Your task to perform on an android device: Set the phone to "Do not disturb". Image 0: 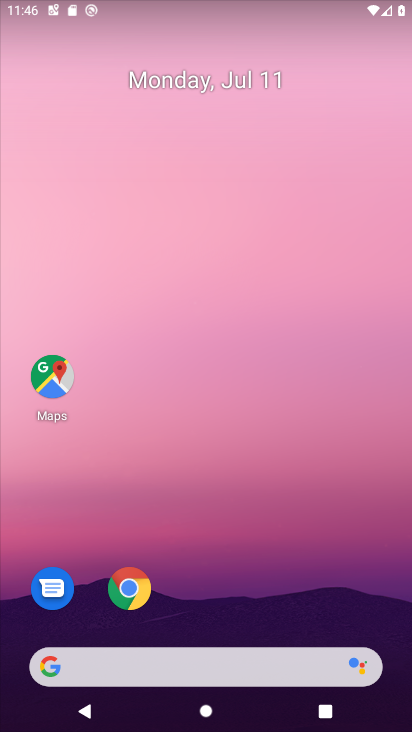
Step 0: drag from (258, 660) to (207, 66)
Your task to perform on an android device: Set the phone to "Do not disturb". Image 1: 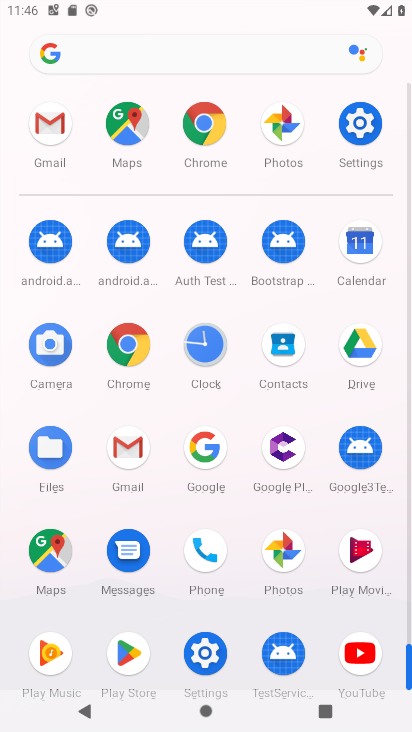
Step 1: click (350, 125)
Your task to perform on an android device: Set the phone to "Do not disturb". Image 2: 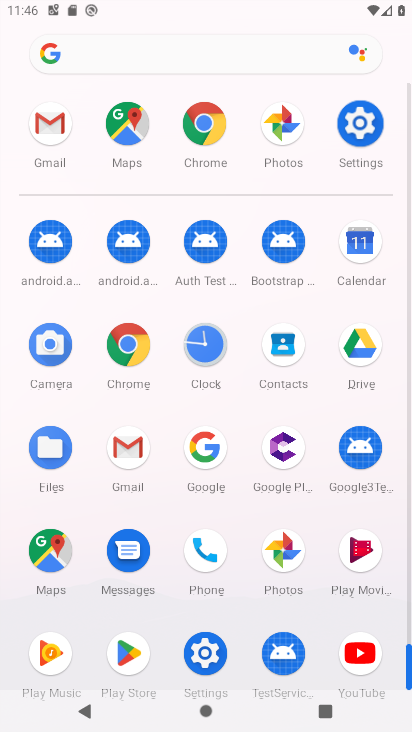
Step 2: click (352, 129)
Your task to perform on an android device: Set the phone to "Do not disturb". Image 3: 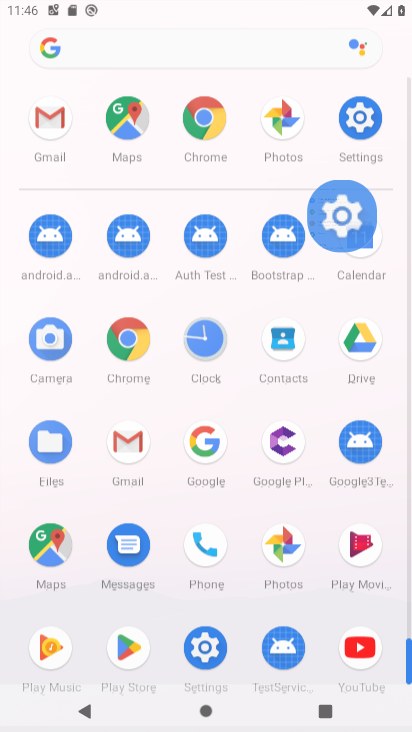
Step 3: click (350, 129)
Your task to perform on an android device: Set the phone to "Do not disturb". Image 4: 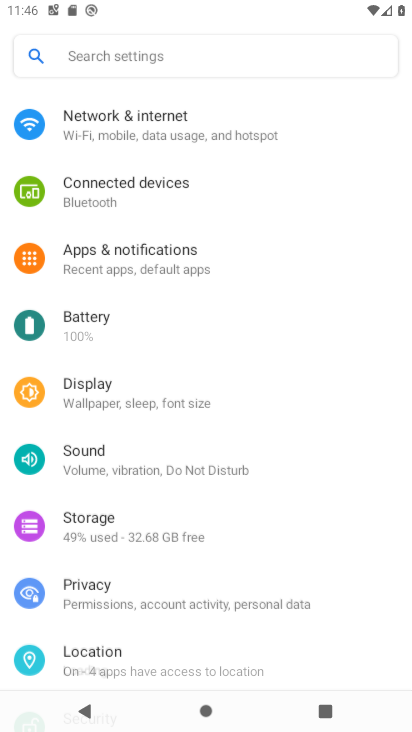
Step 4: click (346, 129)
Your task to perform on an android device: Set the phone to "Do not disturb". Image 5: 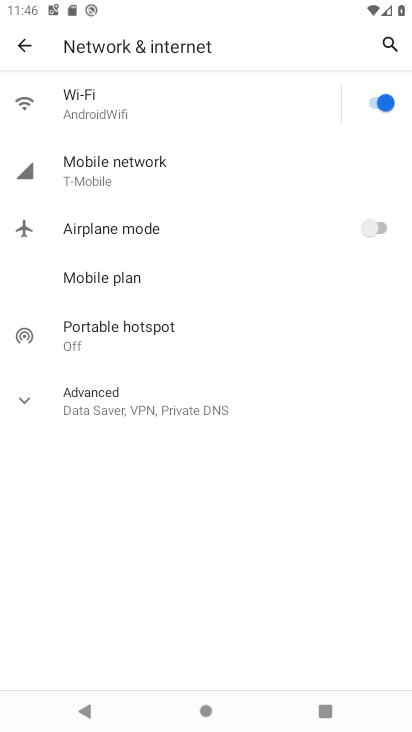
Step 5: click (18, 51)
Your task to perform on an android device: Set the phone to "Do not disturb". Image 6: 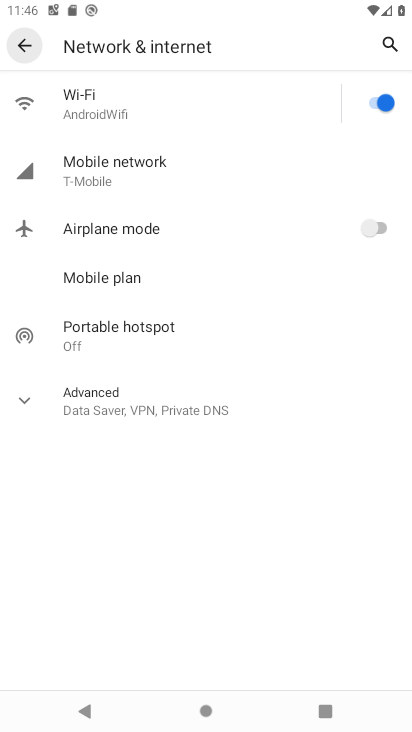
Step 6: click (20, 51)
Your task to perform on an android device: Set the phone to "Do not disturb". Image 7: 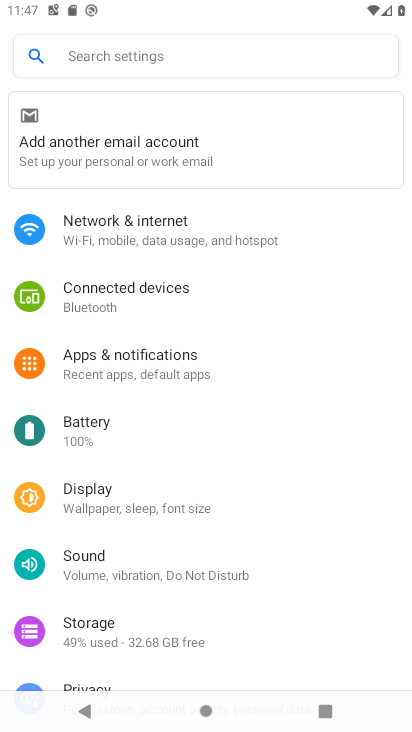
Step 7: click (167, 562)
Your task to perform on an android device: Set the phone to "Do not disturb". Image 8: 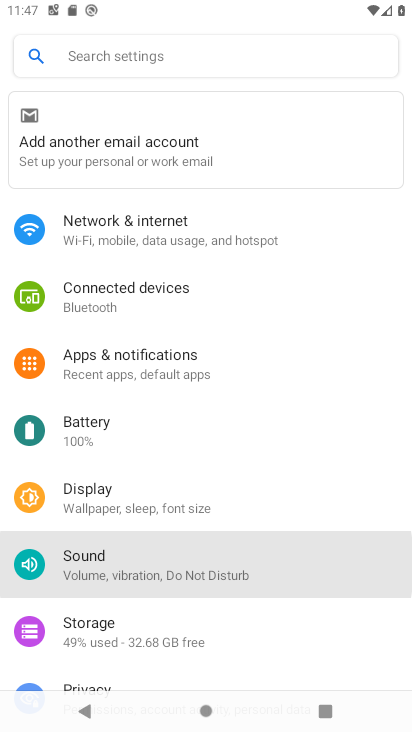
Step 8: click (165, 569)
Your task to perform on an android device: Set the phone to "Do not disturb". Image 9: 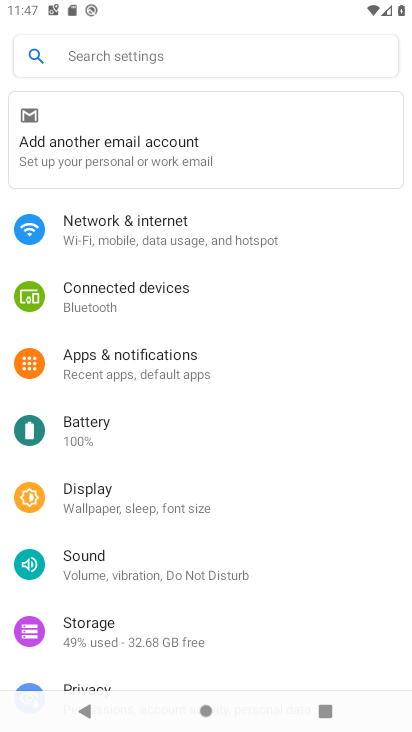
Step 9: click (168, 570)
Your task to perform on an android device: Set the phone to "Do not disturb". Image 10: 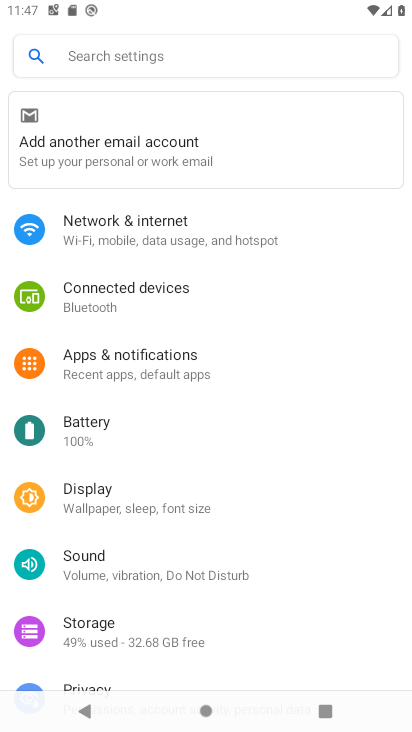
Step 10: click (170, 570)
Your task to perform on an android device: Set the phone to "Do not disturb". Image 11: 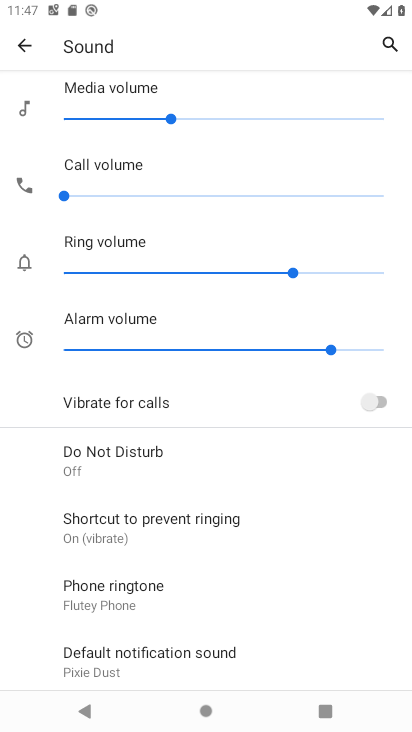
Step 11: click (24, 39)
Your task to perform on an android device: Set the phone to "Do not disturb". Image 12: 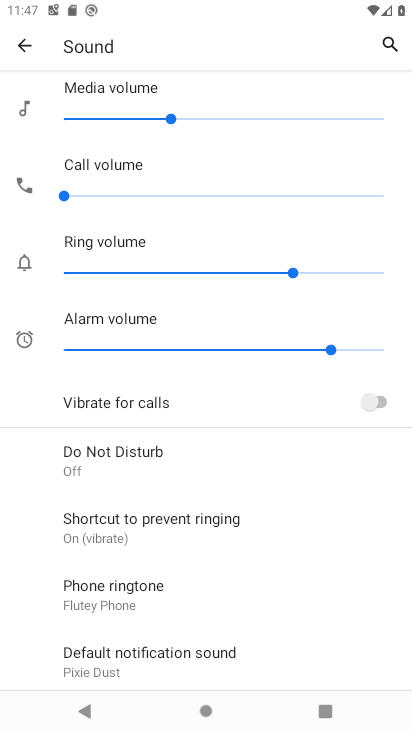
Step 12: click (20, 42)
Your task to perform on an android device: Set the phone to "Do not disturb". Image 13: 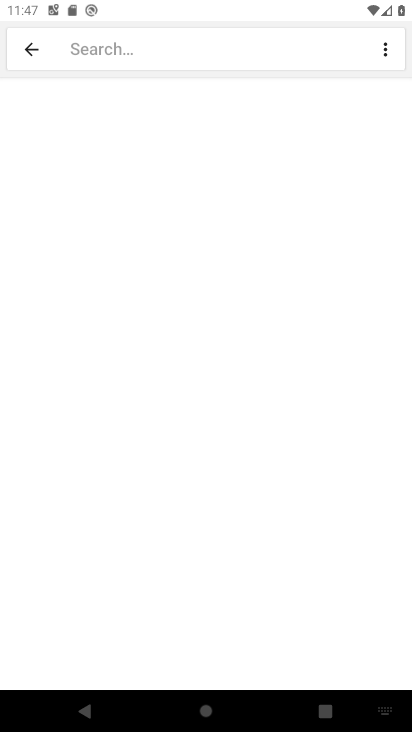
Step 13: click (36, 45)
Your task to perform on an android device: Set the phone to "Do not disturb". Image 14: 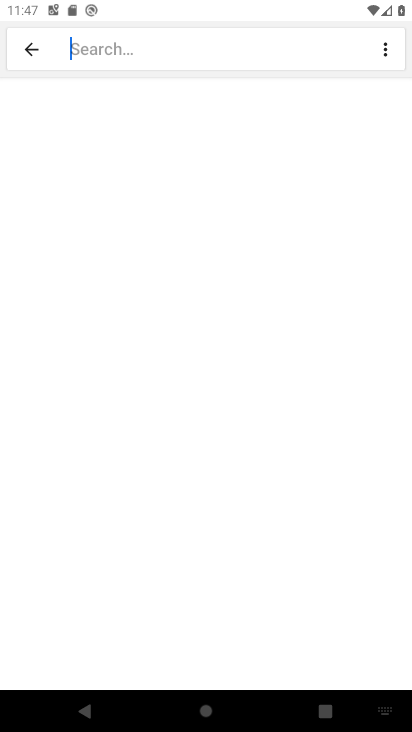
Step 14: click (30, 47)
Your task to perform on an android device: Set the phone to "Do not disturb". Image 15: 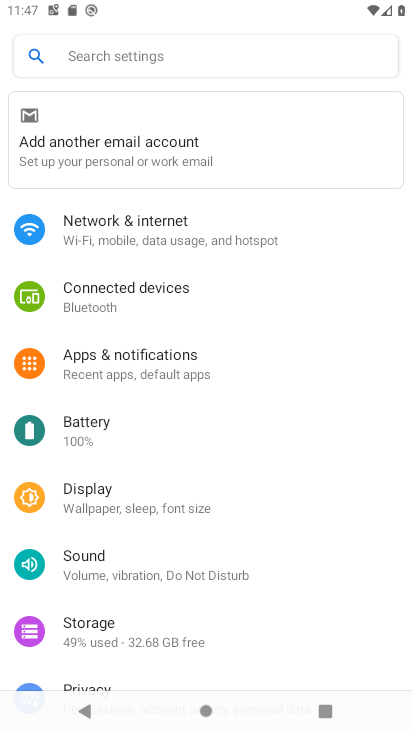
Step 15: click (90, 565)
Your task to perform on an android device: Set the phone to "Do not disturb". Image 16: 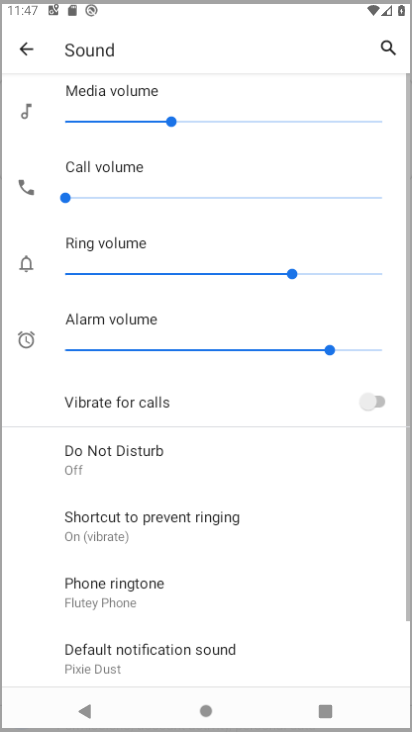
Step 16: click (103, 563)
Your task to perform on an android device: Set the phone to "Do not disturb". Image 17: 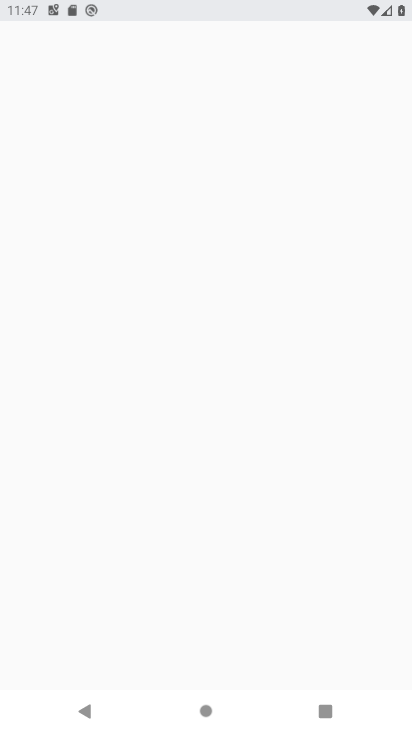
Step 17: drag from (188, 382) to (162, 194)
Your task to perform on an android device: Set the phone to "Do not disturb". Image 18: 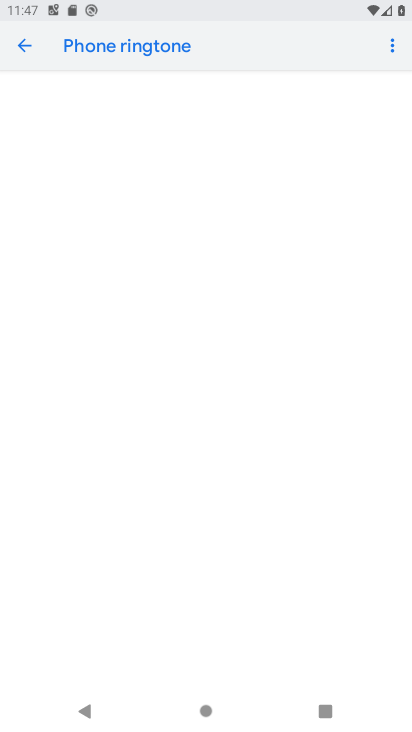
Step 18: drag from (122, 431) to (95, 125)
Your task to perform on an android device: Set the phone to "Do not disturb". Image 19: 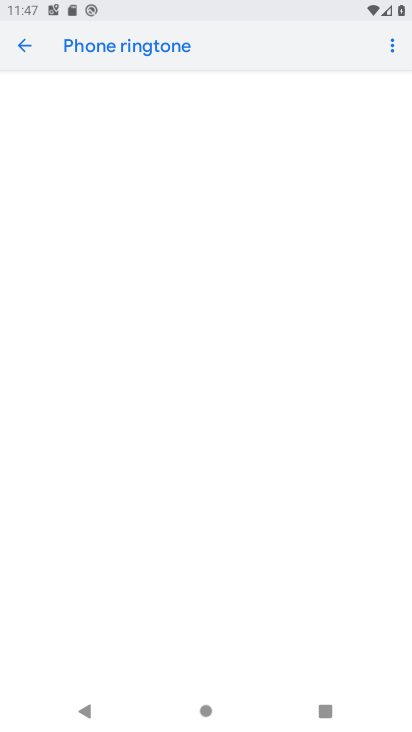
Step 19: drag from (181, 535) to (150, 88)
Your task to perform on an android device: Set the phone to "Do not disturb". Image 20: 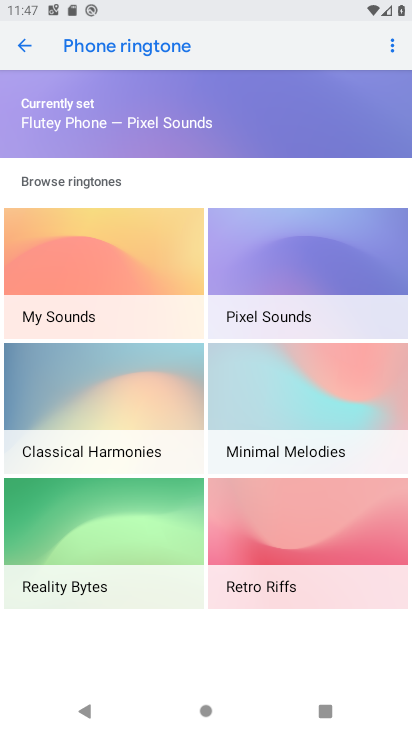
Step 20: click (20, 47)
Your task to perform on an android device: Set the phone to "Do not disturb". Image 21: 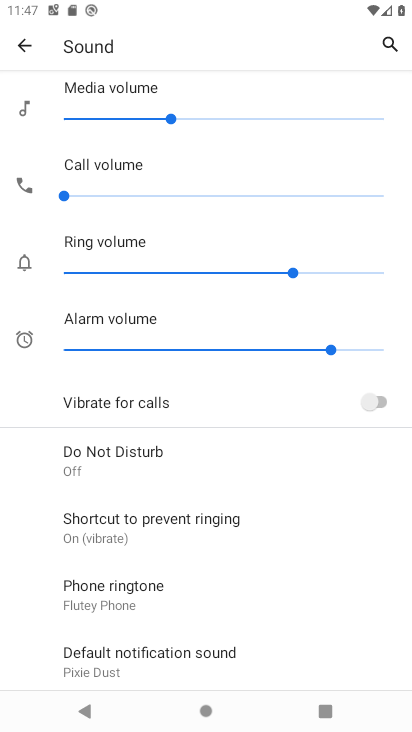
Step 21: task complete